Your task to perform on an android device: Search for seafood restaurants on Google Maps Image 0: 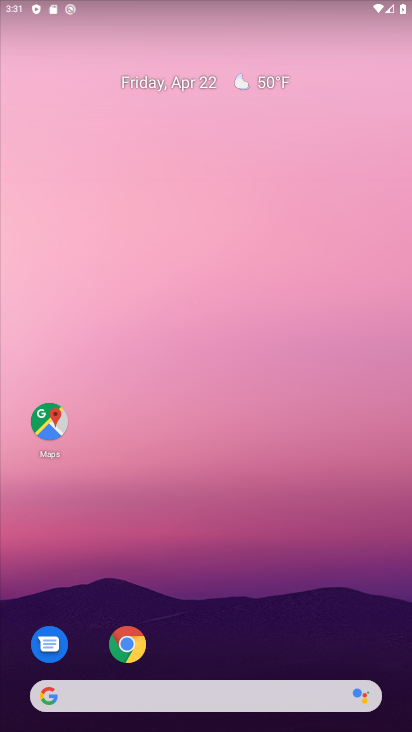
Step 0: drag from (355, 650) to (368, 137)
Your task to perform on an android device: Search for seafood restaurants on Google Maps Image 1: 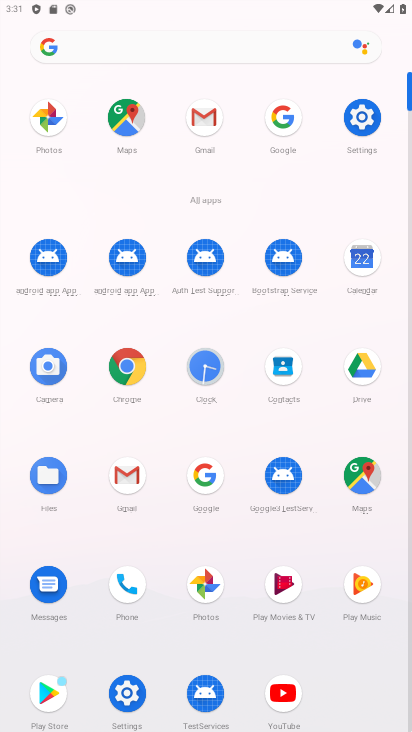
Step 1: click (117, 112)
Your task to perform on an android device: Search for seafood restaurants on Google Maps Image 2: 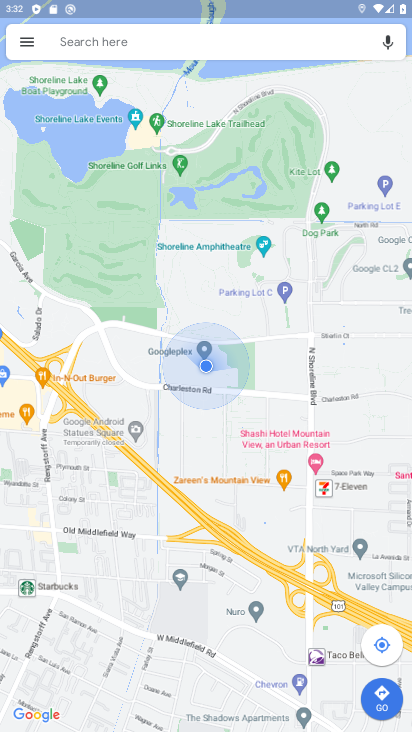
Step 2: click (271, 34)
Your task to perform on an android device: Search for seafood restaurants on Google Maps Image 3: 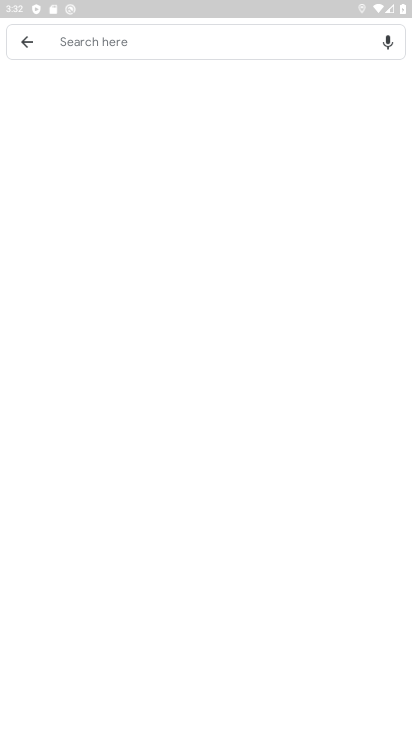
Step 3: click (271, 34)
Your task to perform on an android device: Search for seafood restaurants on Google Maps Image 4: 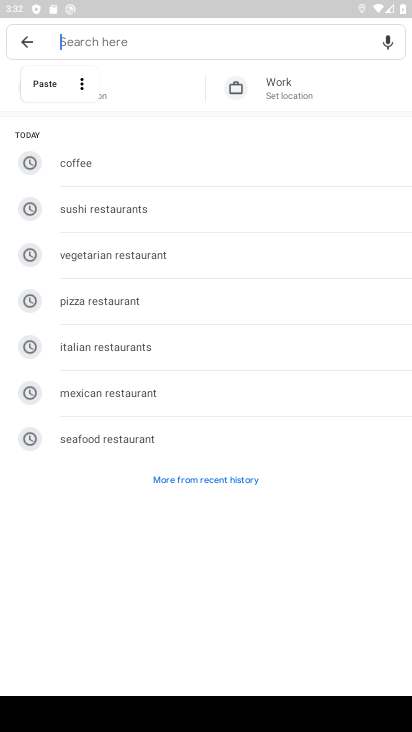
Step 4: type " seafood restaurants "
Your task to perform on an android device: Search for seafood restaurants on Google Maps Image 5: 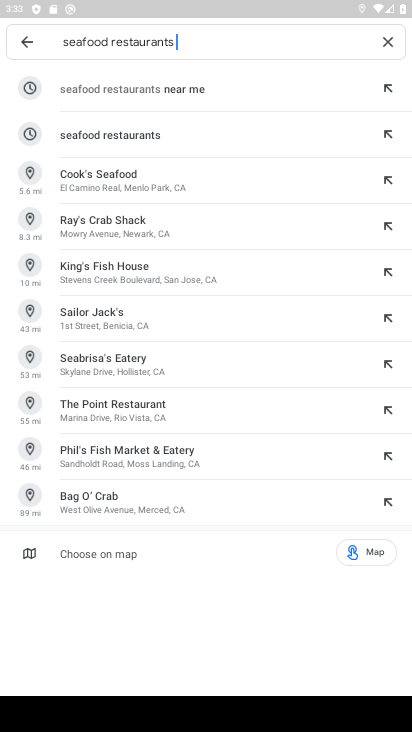
Step 5: click (189, 123)
Your task to perform on an android device: Search for seafood restaurants on Google Maps Image 6: 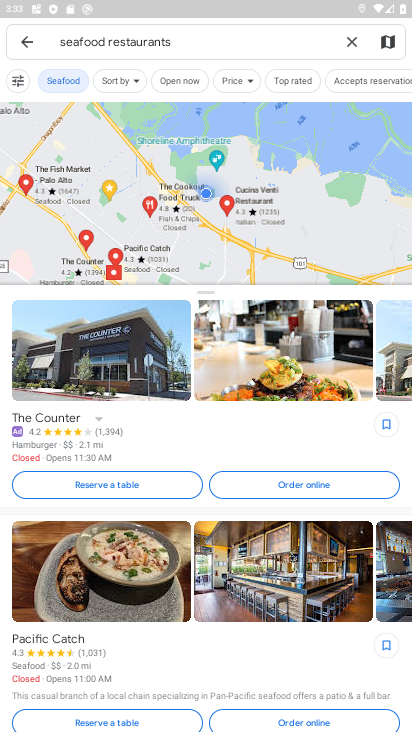
Step 6: task complete